Your task to perform on an android device: turn off location history Image 0: 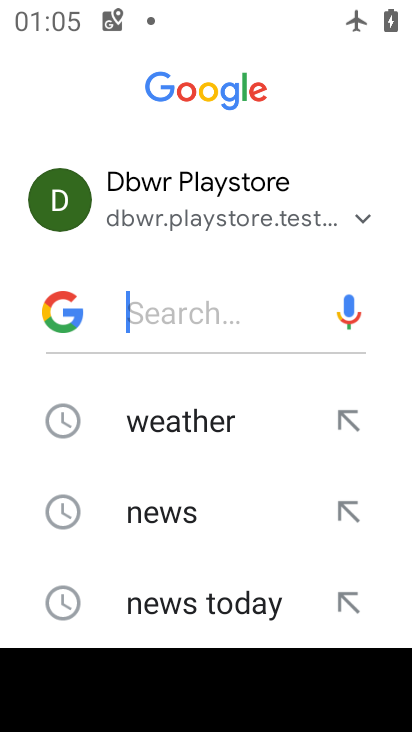
Step 0: press home button
Your task to perform on an android device: turn off location history Image 1: 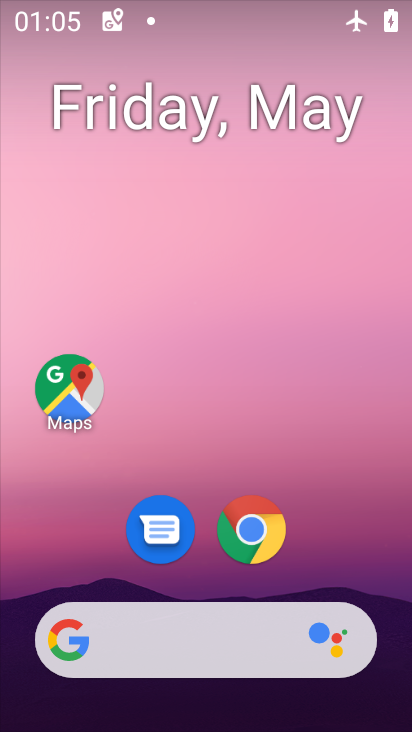
Step 1: drag from (303, 570) to (356, 133)
Your task to perform on an android device: turn off location history Image 2: 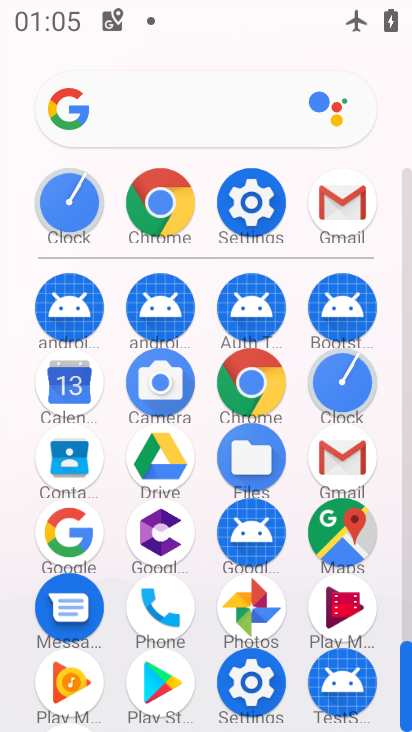
Step 2: click (249, 205)
Your task to perform on an android device: turn off location history Image 3: 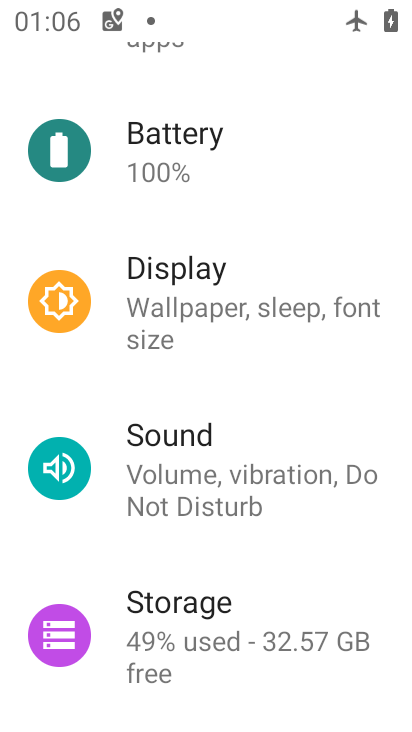
Step 3: drag from (203, 533) to (203, 356)
Your task to perform on an android device: turn off location history Image 4: 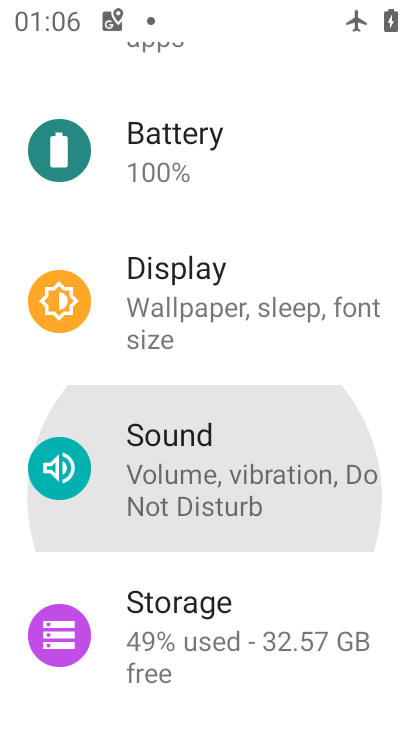
Step 4: drag from (202, 507) to (202, 338)
Your task to perform on an android device: turn off location history Image 5: 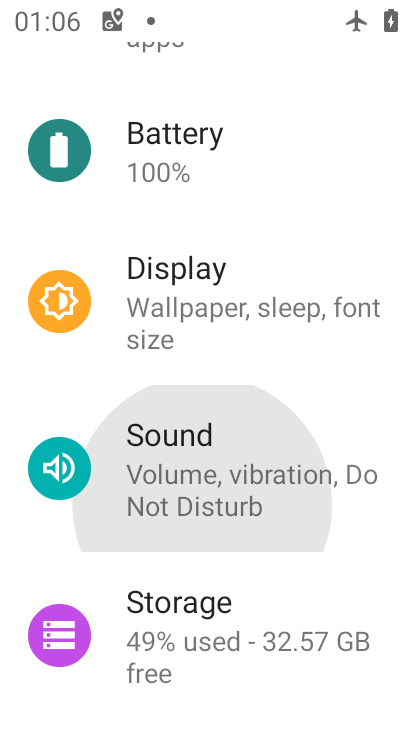
Step 5: drag from (190, 557) to (226, 234)
Your task to perform on an android device: turn off location history Image 6: 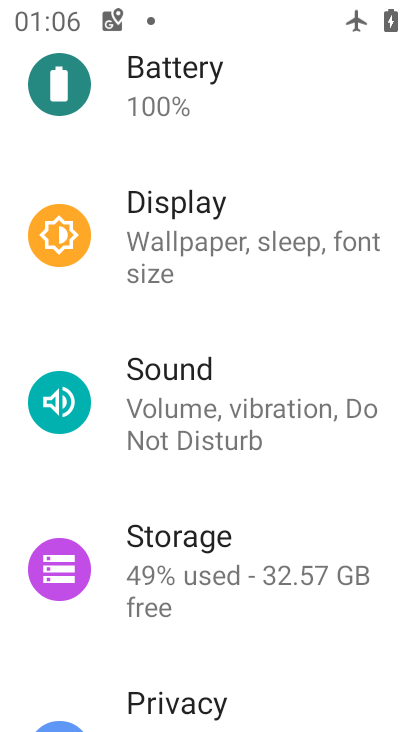
Step 6: drag from (239, 476) to (260, 256)
Your task to perform on an android device: turn off location history Image 7: 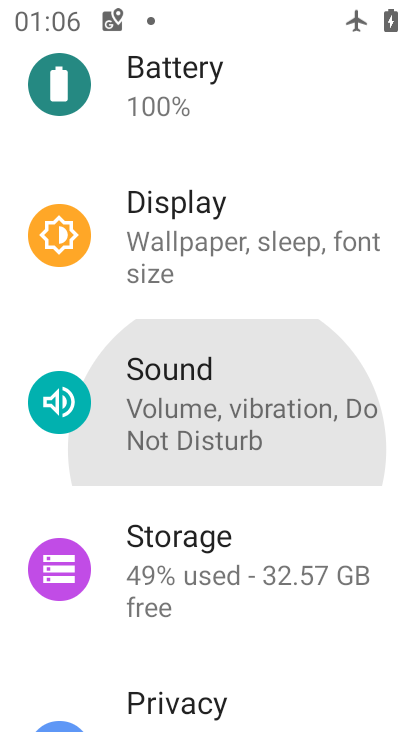
Step 7: drag from (200, 476) to (231, 260)
Your task to perform on an android device: turn off location history Image 8: 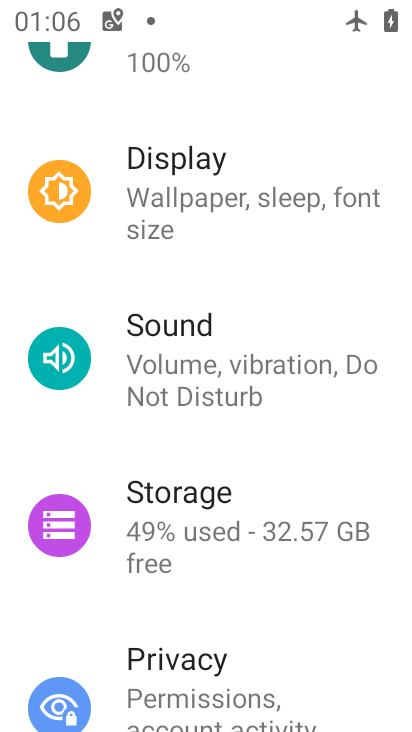
Step 8: drag from (192, 674) to (267, 358)
Your task to perform on an android device: turn off location history Image 9: 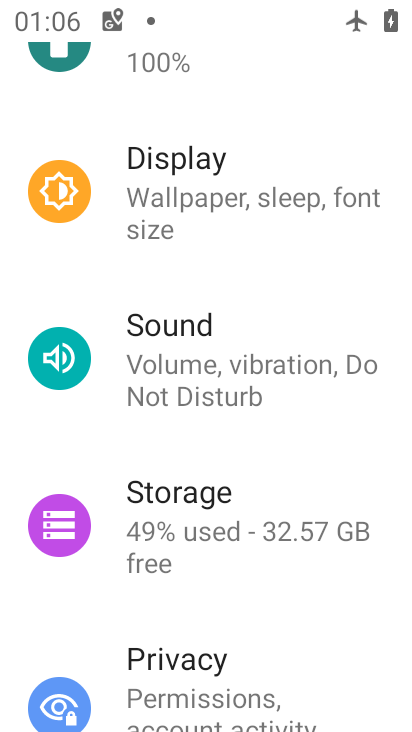
Step 9: drag from (226, 673) to (318, 180)
Your task to perform on an android device: turn off location history Image 10: 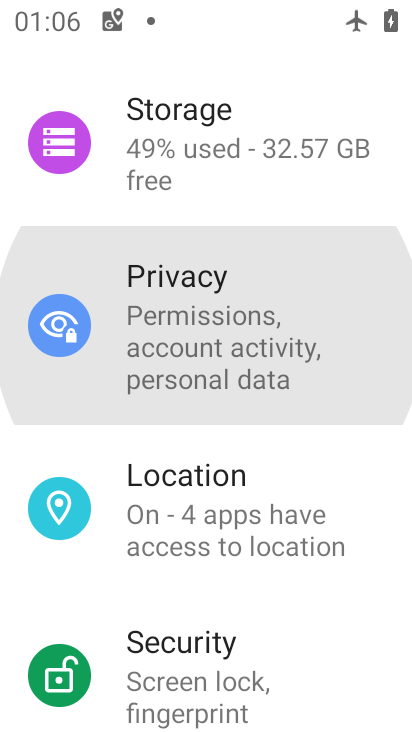
Step 10: drag from (236, 581) to (269, 337)
Your task to perform on an android device: turn off location history Image 11: 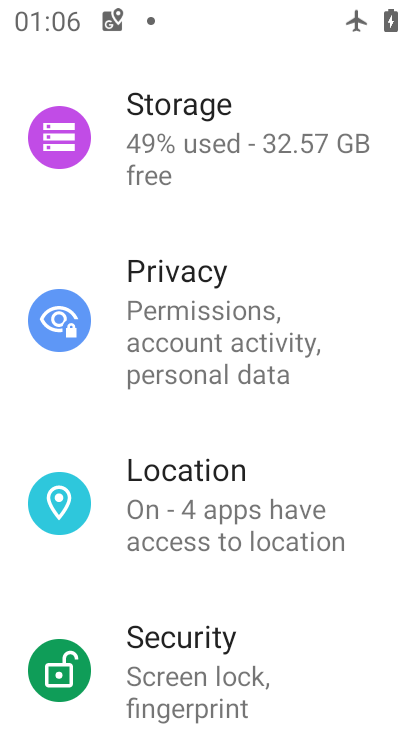
Step 11: drag from (250, 604) to (300, 366)
Your task to perform on an android device: turn off location history Image 12: 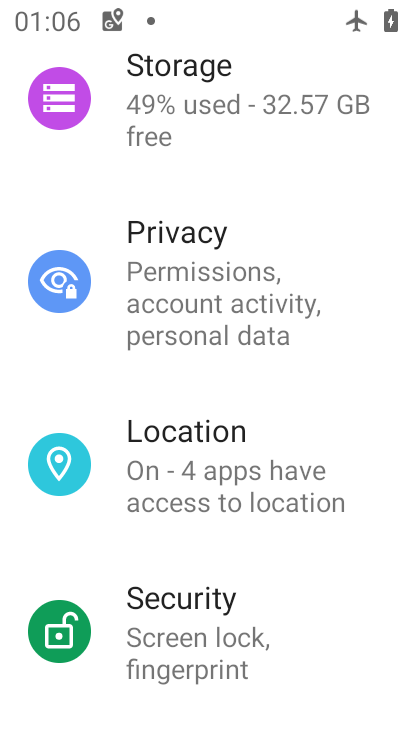
Step 12: drag from (238, 626) to (286, 318)
Your task to perform on an android device: turn off location history Image 13: 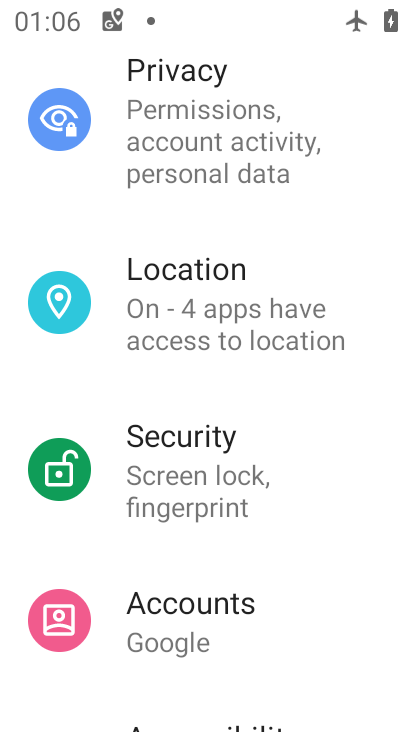
Step 13: drag from (255, 552) to (258, 336)
Your task to perform on an android device: turn off location history Image 14: 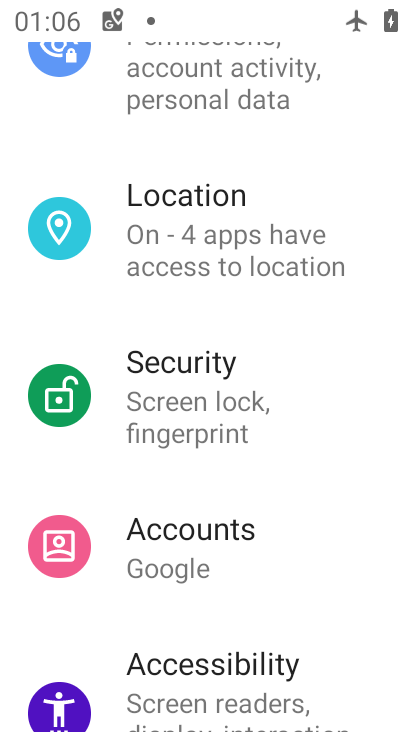
Step 14: drag from (213, 596) to (264, 243)
Your task to perform on an android device: turn off location history Image 15: 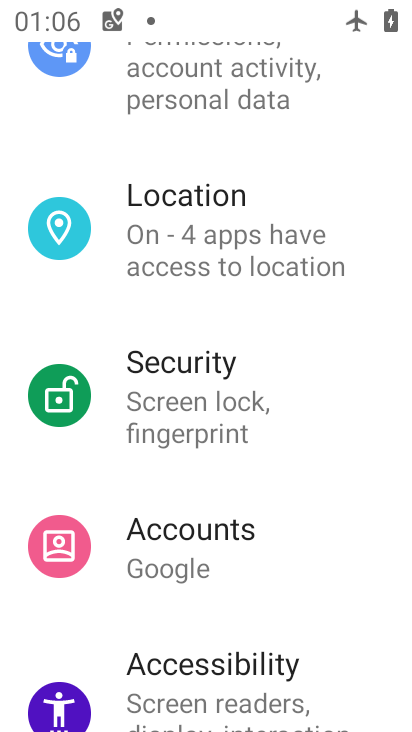
Step 15: drag from (275, 490) to (301, 341)
Your task to perform on an android device: turn off location history Image 16: 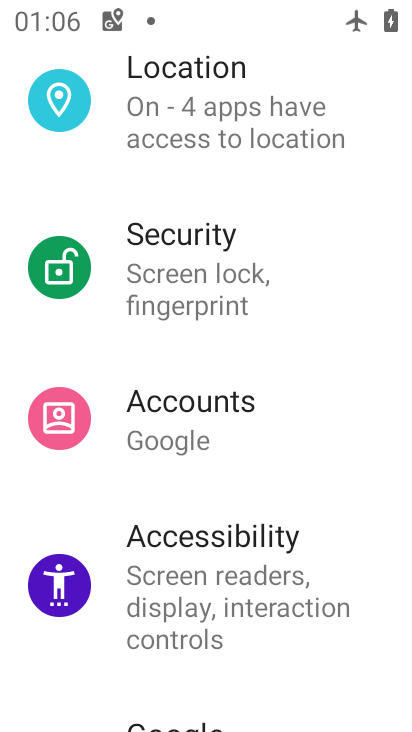
Step 16: drag from (241, 674) to (320, 232)
Your task to perform on an android device: turn off location history Image 17: 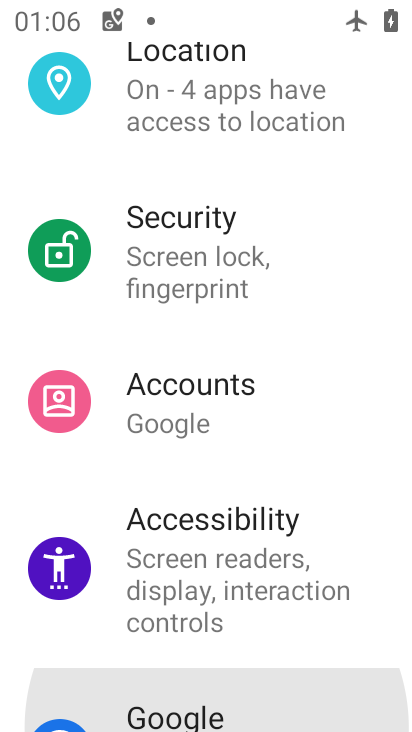
Step 17: drag from (267, 549) to (292, 230)
Your task to perform on an android device: turn off location history Image 18: 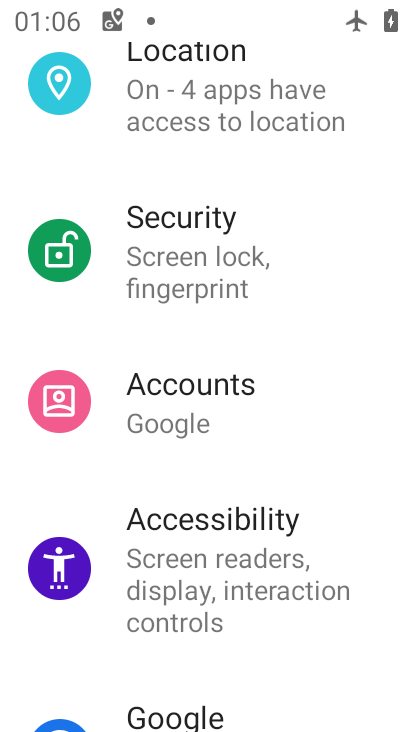
Step 18: drag from (243, 581) to (291, 256)
Your task to perform on an android device: turn off location history Image 19: 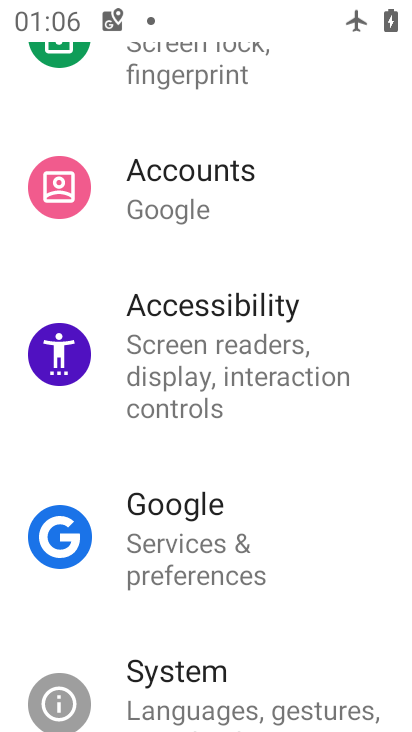
Step 19: drag from (248, 574) to (278, 296)
Your task to perform on an android device: turn off location history Image 20: 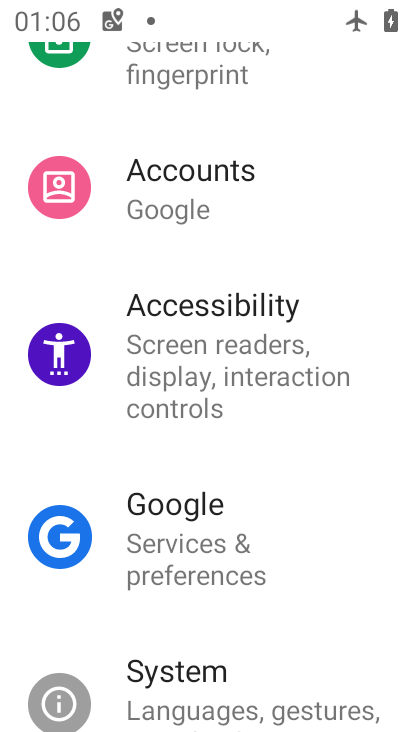
Step 20: drag from (172, 668) to (211, 317)
Your task to perform on an android device: turn off location history Image 21: 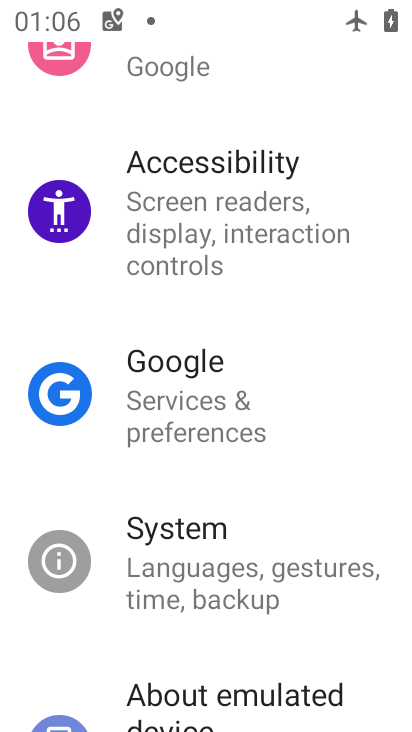
Step 21: drag from (216, 443) to (208, 609)
Your task to perform on an android device: turn off location history Image 22: 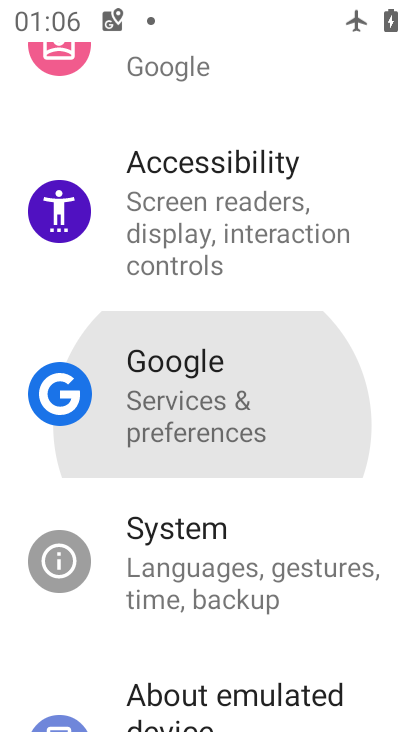
Step 22: drag from (218, 622) to (228, 673)
Your task to perform on an android device: turn off location history Image 23: 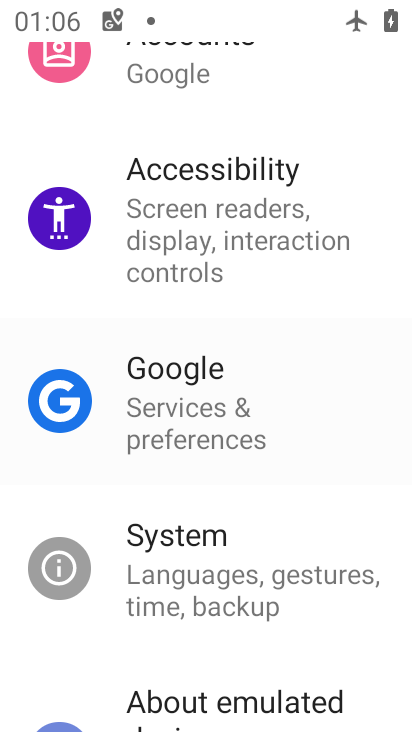
Step 23: drag from (174, 160) to (138, 536)
Your task to perform on an android device: turn off location history Image 24: 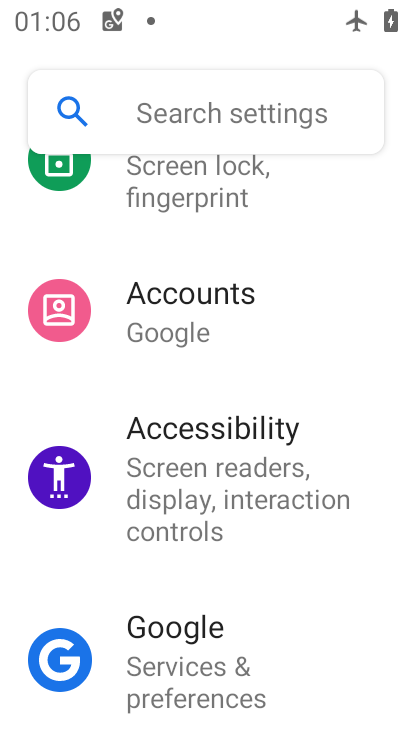
Step 24: drag from (148, 165) to (175, 583)
Your task to perform on an android device: turn off location history Image 25: 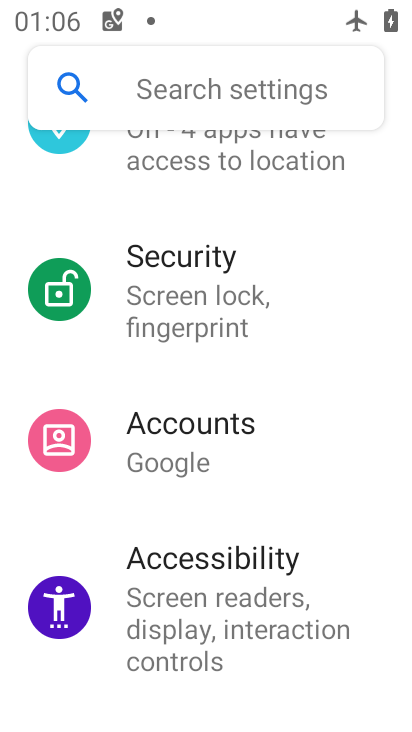
Step 25: click (239, 669)
Your task to perform on an android device: turn off location history Image 26: 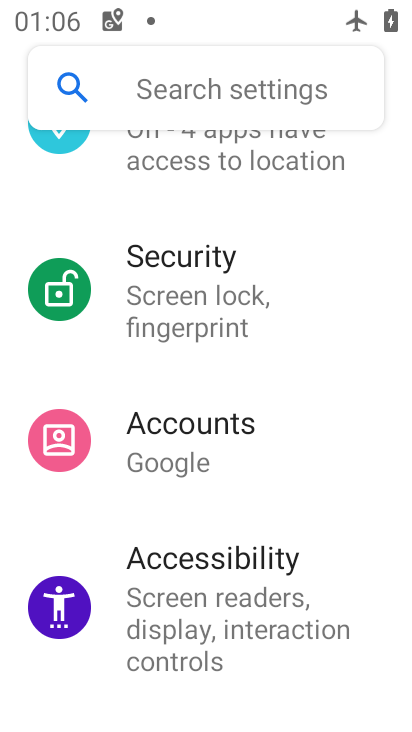
Step 26: drag from (201, 435) to (201, 687)
Your task to perform on an android device: turn off location history Image 27: 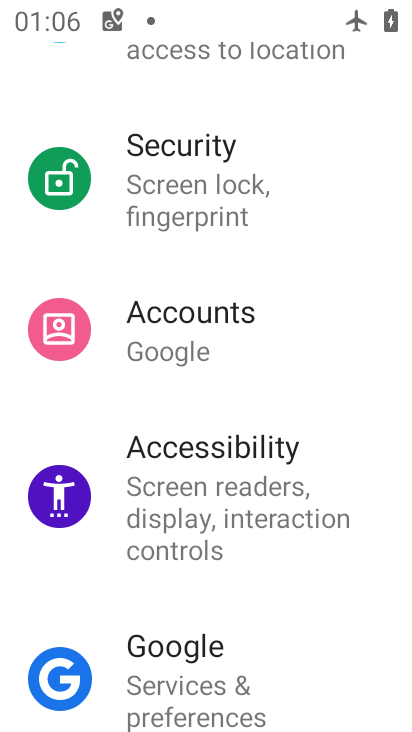
Step 27: drag from (208, 368) to (212, 673)
Your task to perform on an android device: turn off location history Image 28: 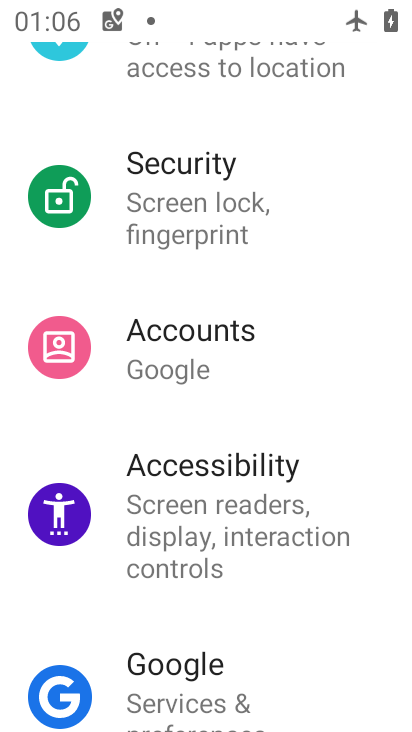
Step 28: drag from (218, 415) to (232, 723)
Your task to perform on an android device: turn off location history Image 29: 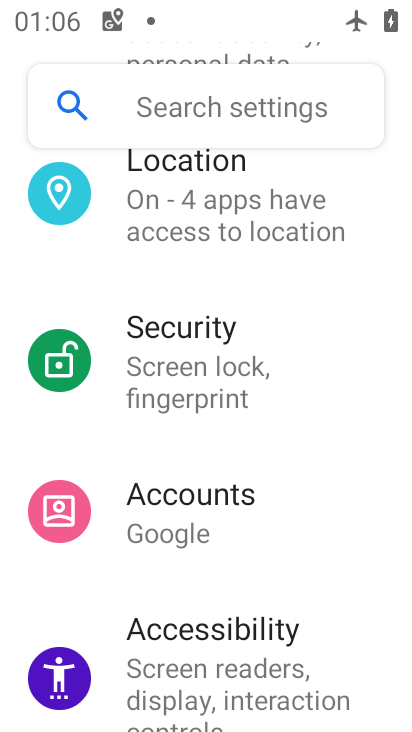
Step 29: drag from (178, 460) to (191, 553)
Your task to perform on an android device: turn off location history Image 30: 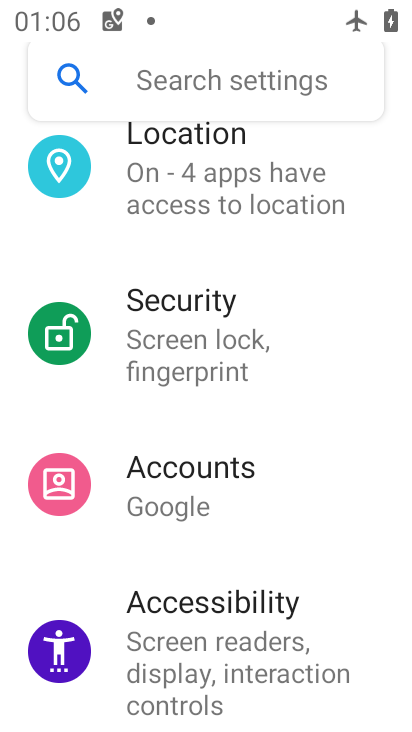
Step 30: click (198, 517)
Your task to perform on an android device: turn off location history Image 31: 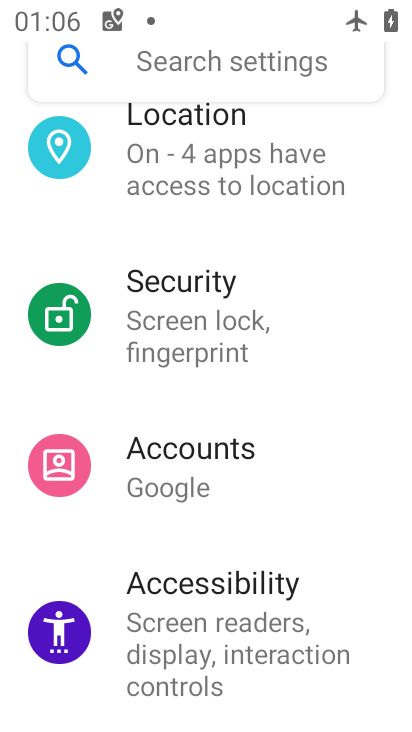
Step 31: click (219, 159)
Your task to perform on an android device: turn off location history Image 32: 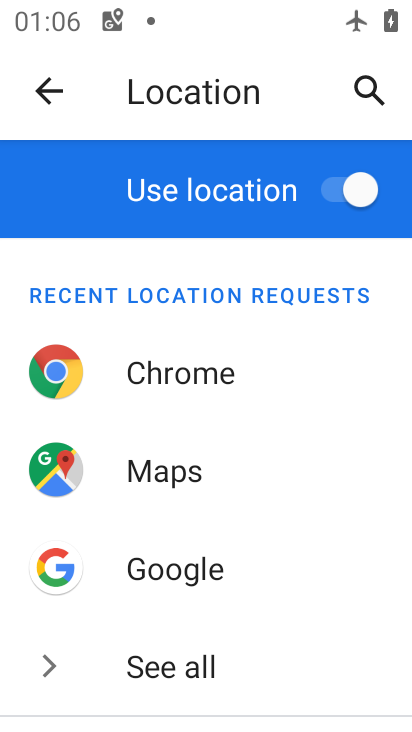
Step 32: click (341, 172)
Your task to perform on an android device: turn off location history Image 33: 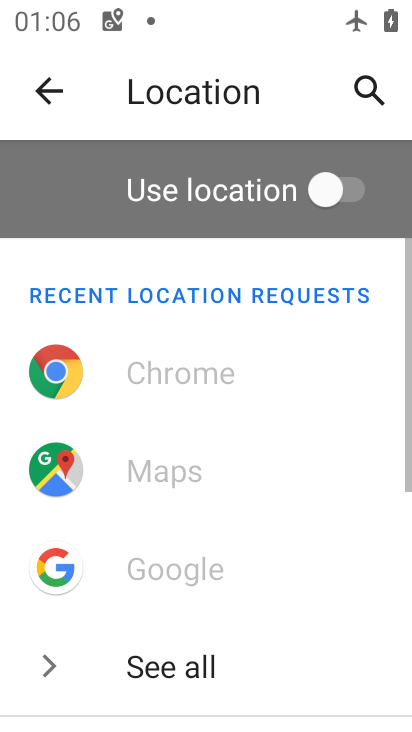
Step 33: task complete